Your task to perform on an android device: change keyboard looks Image 0: 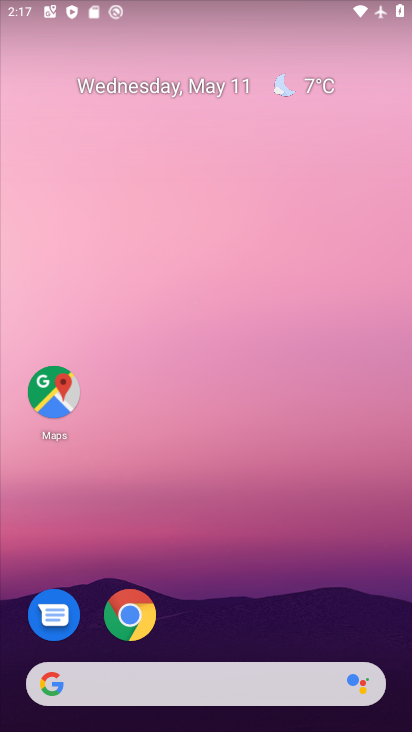
Step 0: drag from (326, 629) to (218, 108)
Your task to perform on an android device: change keyboard looks Image 1: 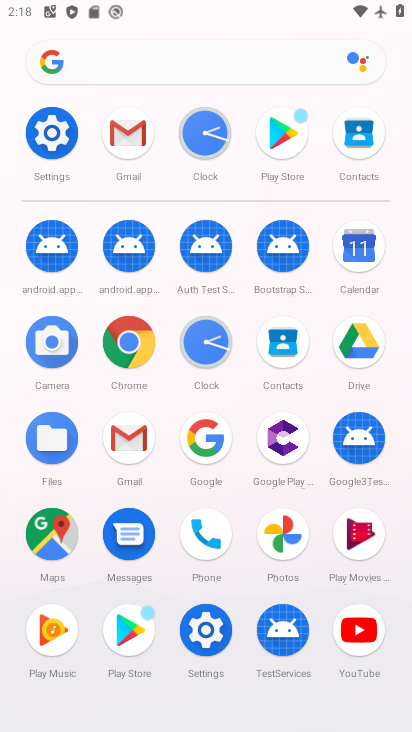
Step 1: click (55, 123)
Your task to perform on an android device: change keyboard looks Image 2: 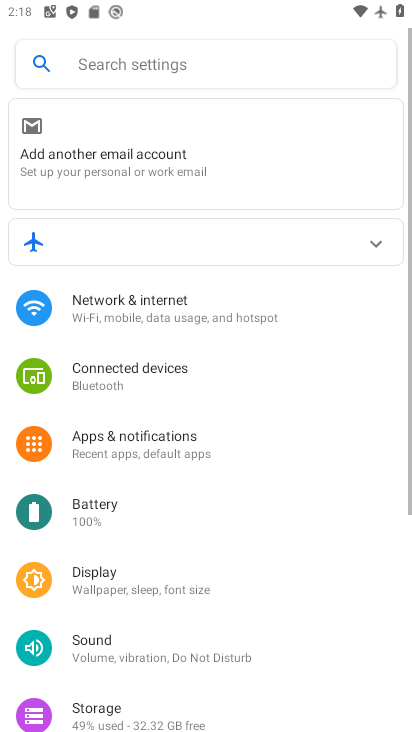
Step 2: drag from (262, 626) to (194, 87)
Your task to perform on an android device: change keyboard looks Image 3: 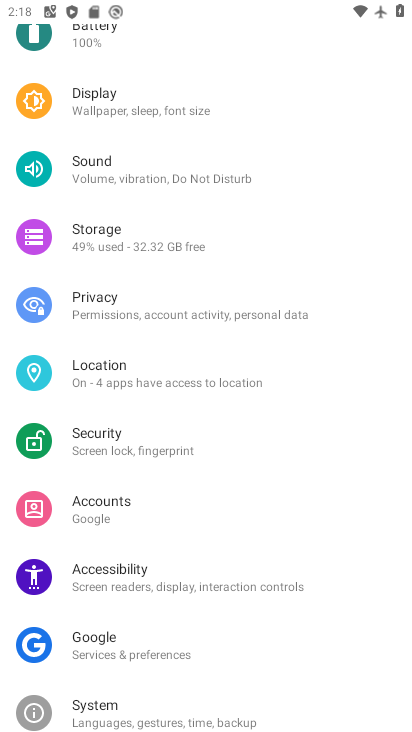
Step 3: drag from (187, 606) to (270, 174)
Your task to perform on an android device: change keyboard looks Image 4: 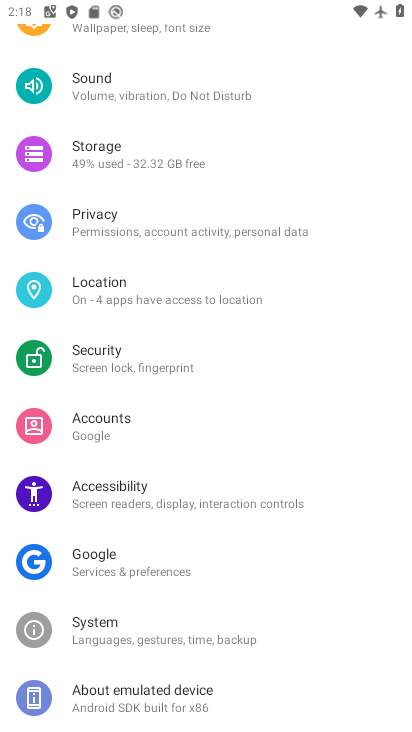
Step 4: click (108, 627)
Your task to perform on an android device: change keyboard looks Image 5: 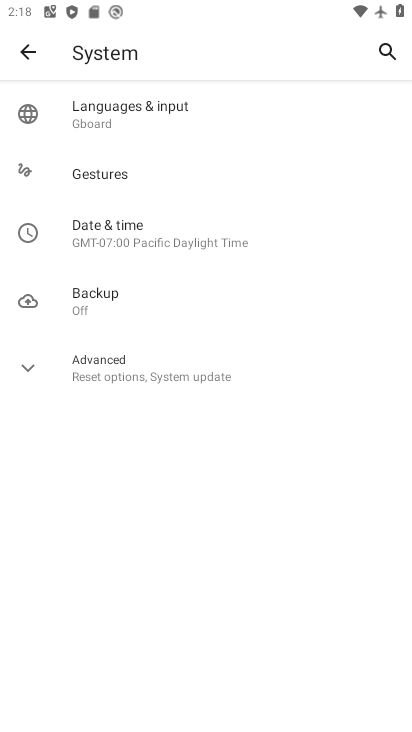
Step 5: click (122, 113)
Your task to perform on an android device: change keyboard looks Image 6: 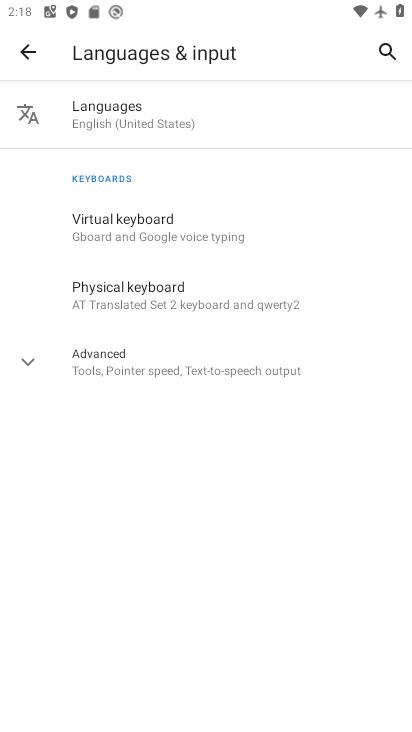
Step 6: click (159, 217)
Your task to perform on an android device: change keyboard looks Image 7: 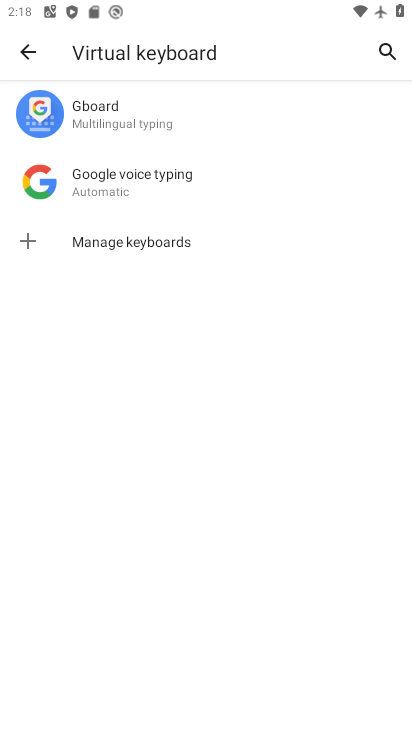
Step 7: click (177, 124)
Your task to perform on an android device: change keyboard looks Image 8: 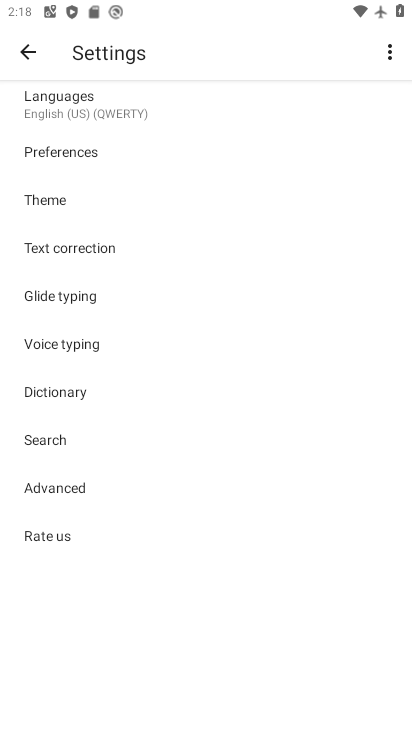
Step 8: click (62, 199)
Your task to perform on an android device: change keyboard looks Image 9: 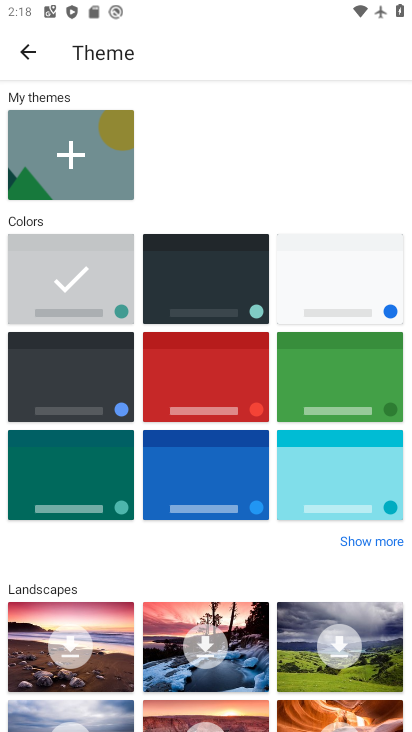
Step 9: click (365, 286)
Your task to perform on an android device: change keyboard looks Image 10: 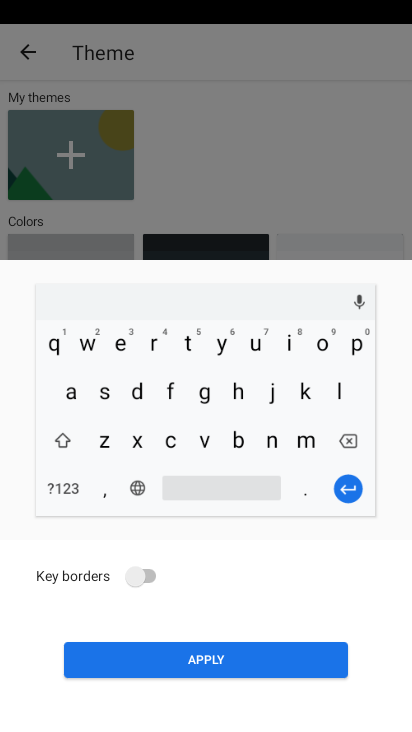
Step 10: click (248, 641)
Your task to perform on an android device: change keyboard looks Image 11: 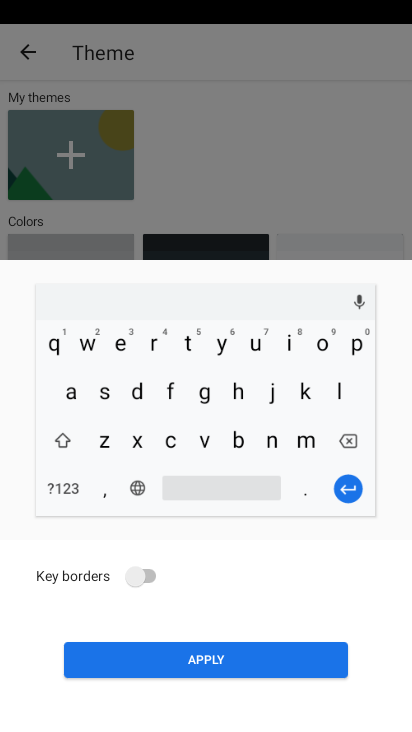
Step 11: click (260, 662)
Your task to perform on an android device: change keyboard looks Image 12: 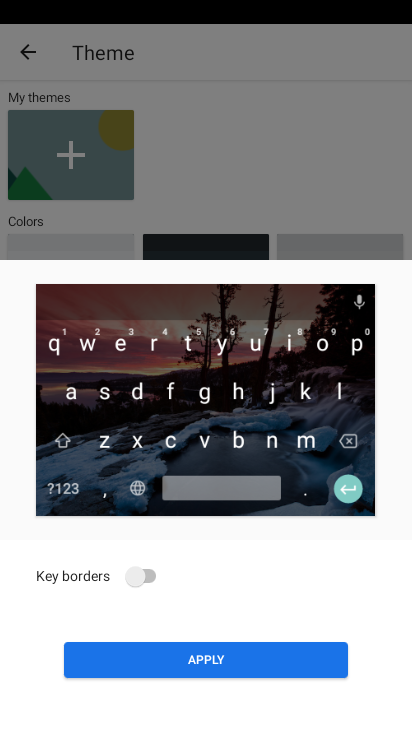
Step 12: task complete